Your task to perform on an android device: remove spam from my inbox in the gmail app Image 0: 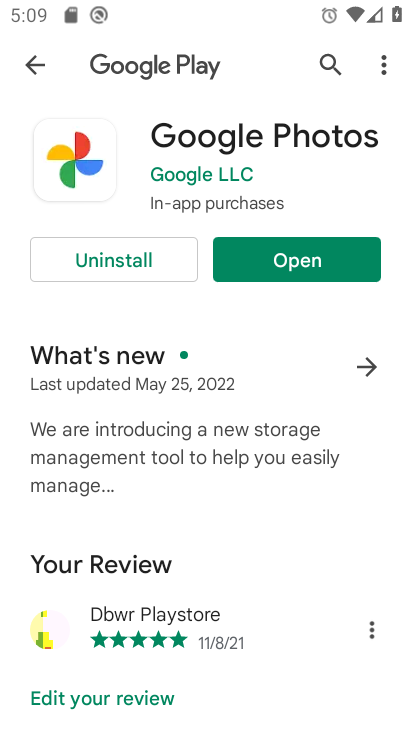
Step 0: press home button
Your task to perform on an android device: remove spam from my inbox in the gmail app Image 1: 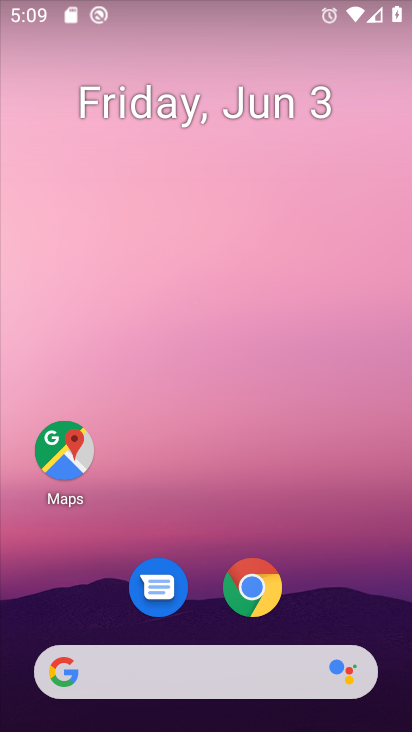
Step 1: drag from (157, 728) to (183, 62)
Your task to perform on an android device: remove spam from my inbox in the gmail app Image 2: 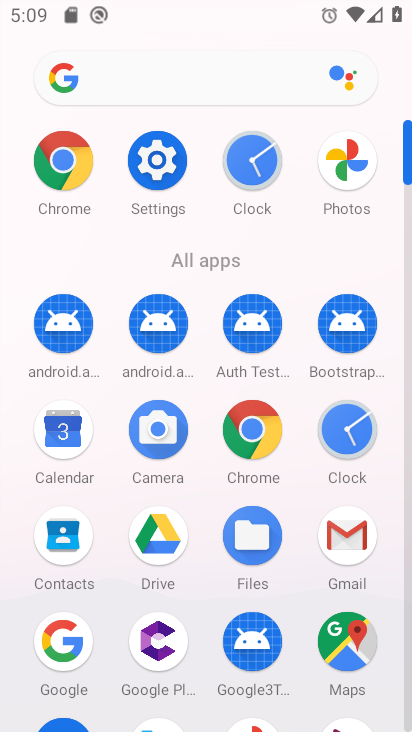
Step 2: click (358, 544)
Your task to perform on an android device: remove spam from my inbox in the gmail app Image 3: 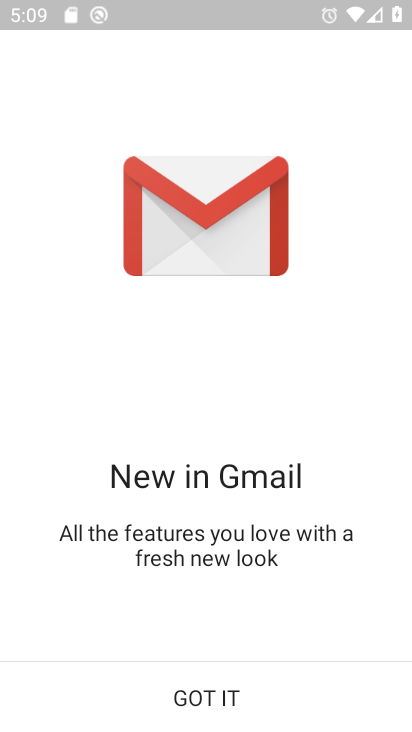
Step 3: click (213, 697)
Your task to perform on an android device: remove spam from my inbox in the gmail app Image 4: 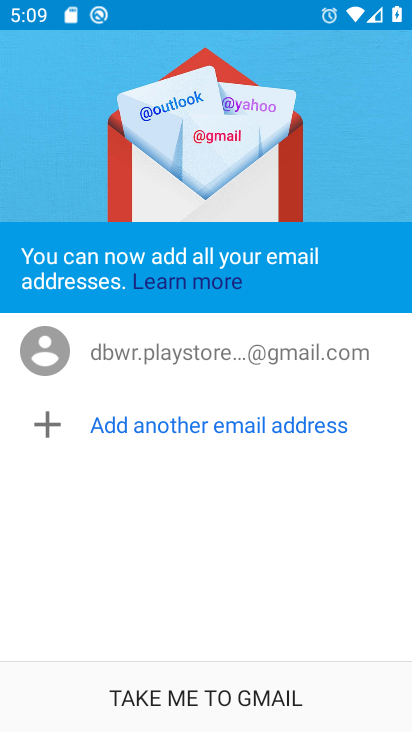
Step 4: click (233, 694)
Your task to perform on an android device: remove spam from my inbox in the gmail app Image 5: 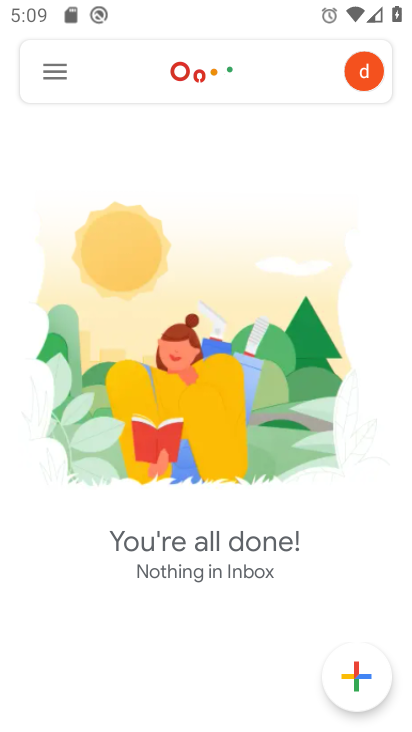
Step 5: click (54, 79)
Your task to perform on an android device: remove spam from my inbox in the gmail app Image 6: 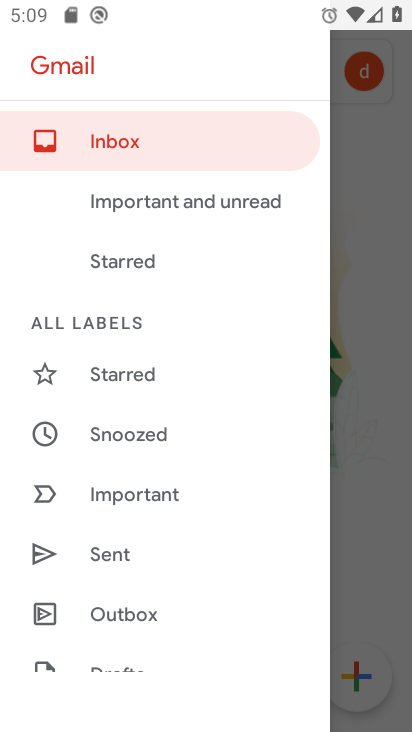
Step 6: drag from (228, 612) to (188, 176)
Your task to perform on an android device: remove spam from my inbox in the gmail app Image 7: 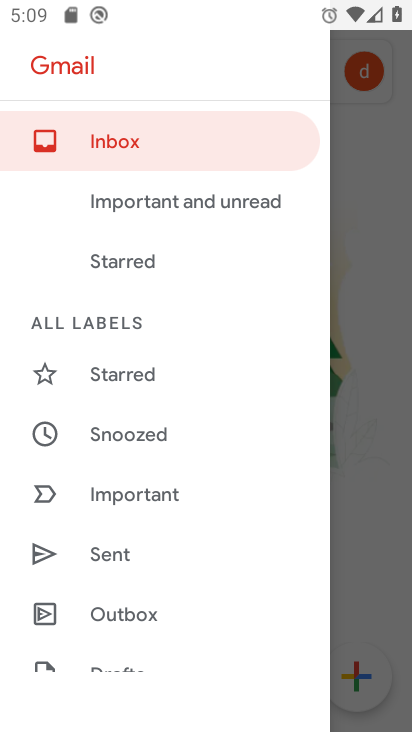
Step 7: drag from (198, 619) to (220, 142)
Your task to perform on an android device: remove spam from my inbox in the gmail app Image 8: 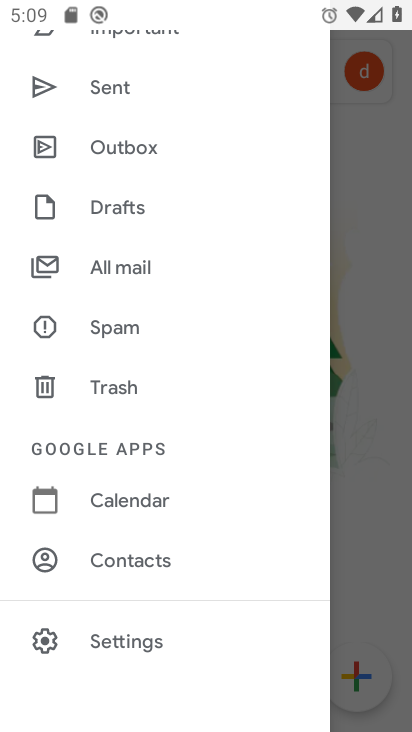
Step 8: click (111, 326)
Your task to perform on an android device: remove spam from my inbox in the gmail app Image 9: 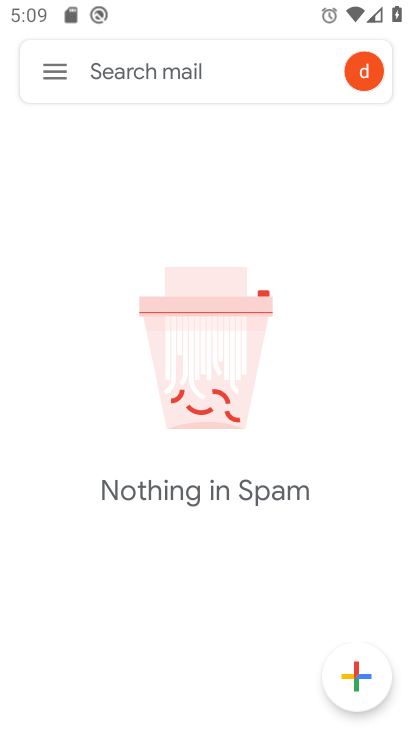
Step 9: task complete